Your task to perform on an android device: check google app version Image 0: 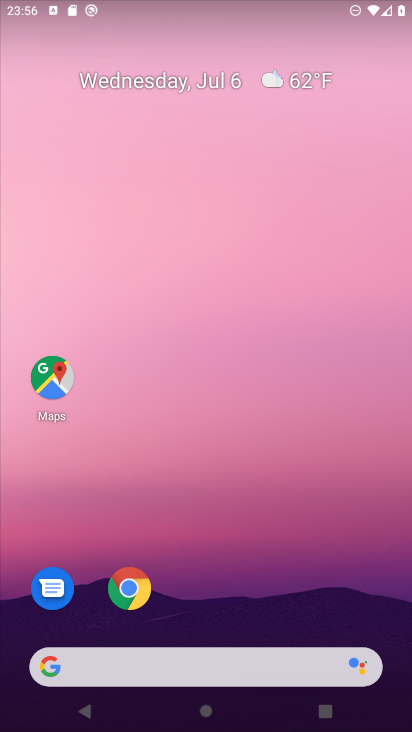
Step 0: click (127, 590)
Your task to perform on an android device: check google app version Image 1: 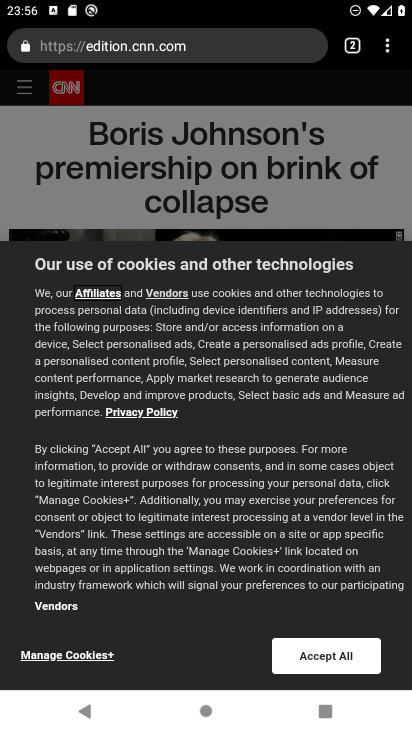
Step 1: click (387, 53)
Your task to perform on an android device: check google app version Image 2: 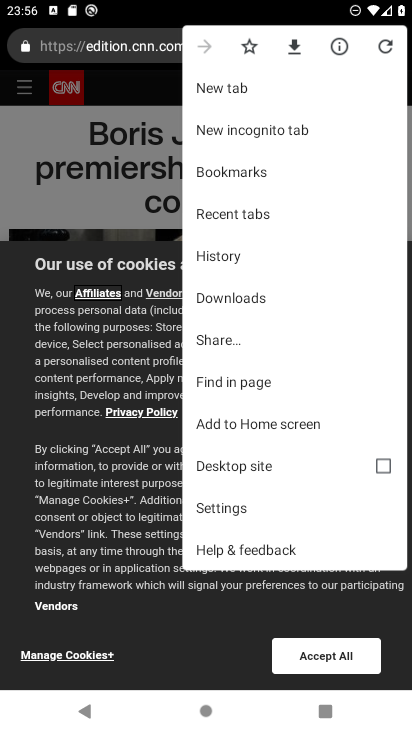
Step 2: click (212, 507)
Your task to perform on an android device: check google app version Image 3: 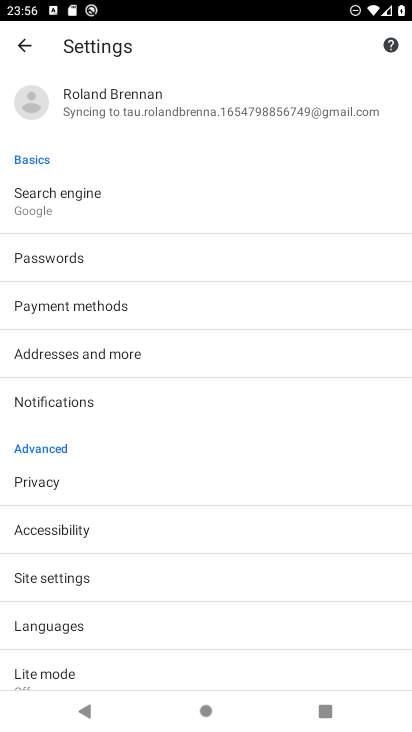
Step 3: drag from (199, 647) to (219, 198)
Your task to perform on an android device: check google app version Image 4: 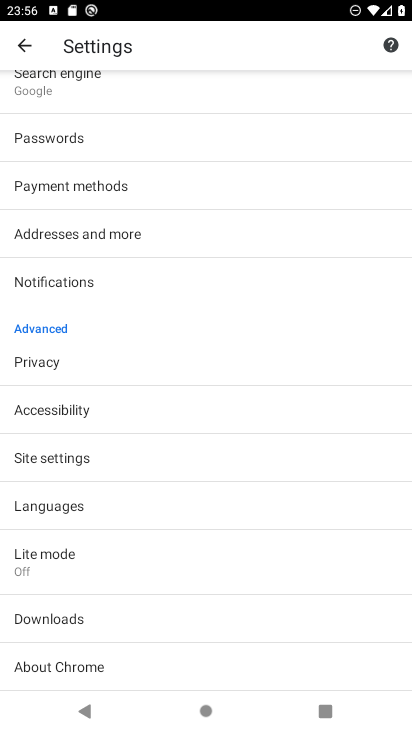
Step 4: click (51, 659)
Your task to perform on an android device: check google app version Image 5: 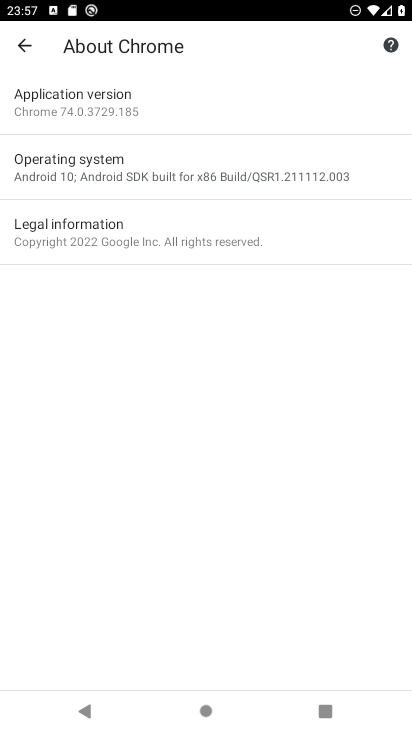
Step 5: click (66, 93)
Your task to perform on an android device: check google app version Image 6: 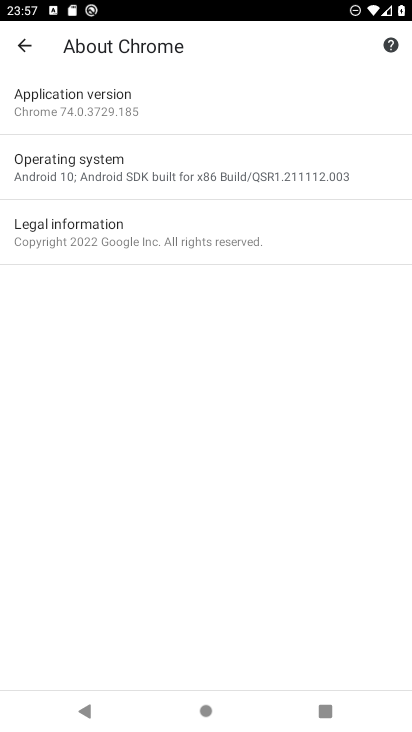
Step 6: click (44, 98)
Your task to perform on an android device: check google app version Image 7: 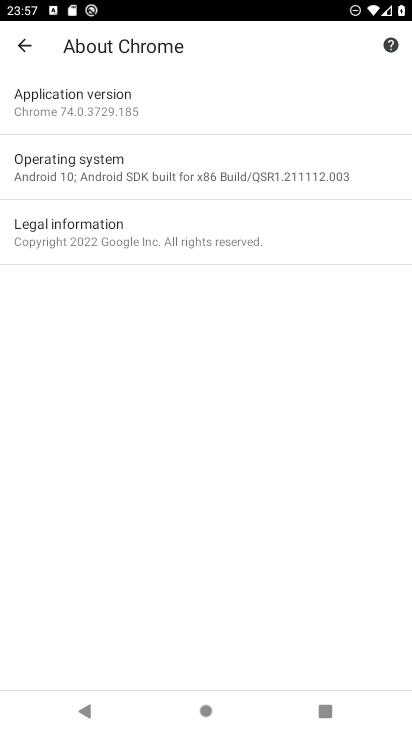
Step 7: task complete